Your task to perform on an android device: What's the weather today? Image 0: 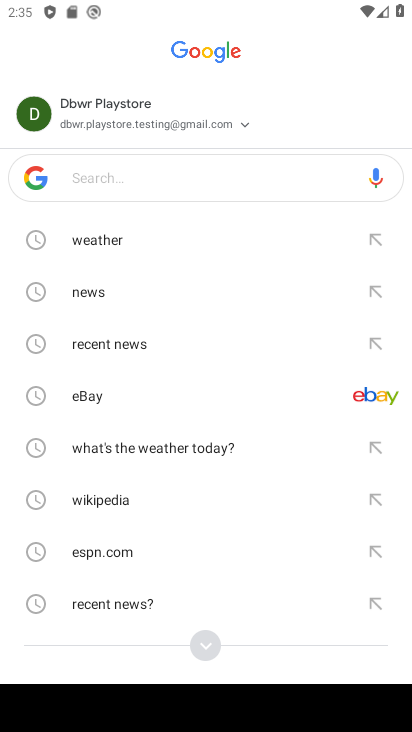
Step 0: press home button
Your task to perform on an android device: What's the weather today? Image 1: 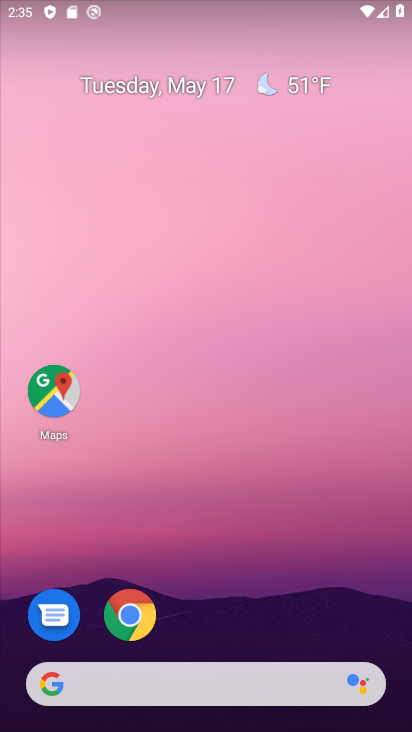
Step 1: drag from (217, 630) to (288, 5)
Your task to perform on an android device: What's the weather today? Image 2: 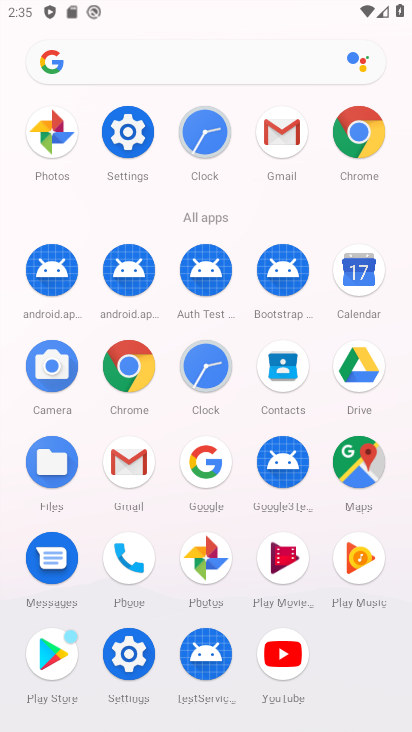
Step 2: press back button
Your task to perform on an android device: What's the weather today? Image 3: 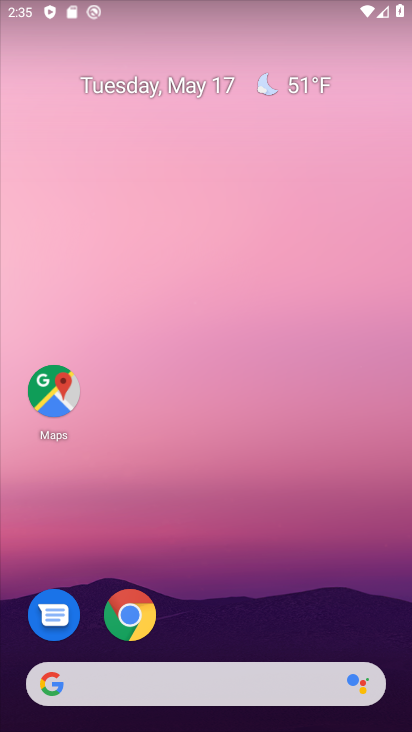
Step 3: click (295, 83)
Your task to perform on an android device: What's the weather today? Image 4: 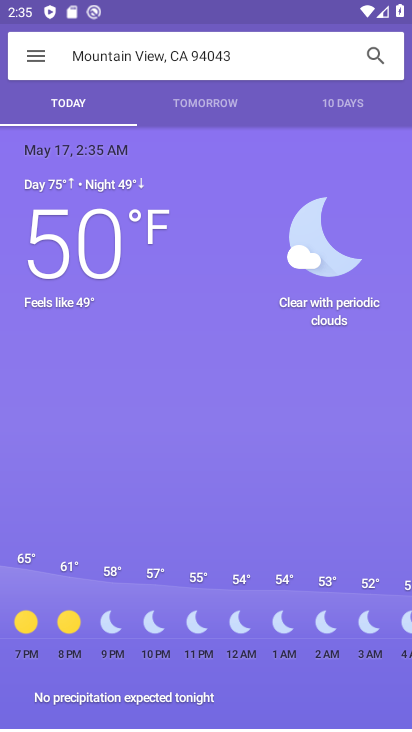
Step 4: task complete